Your task to perform on an android device: open wifi settings Image 0: 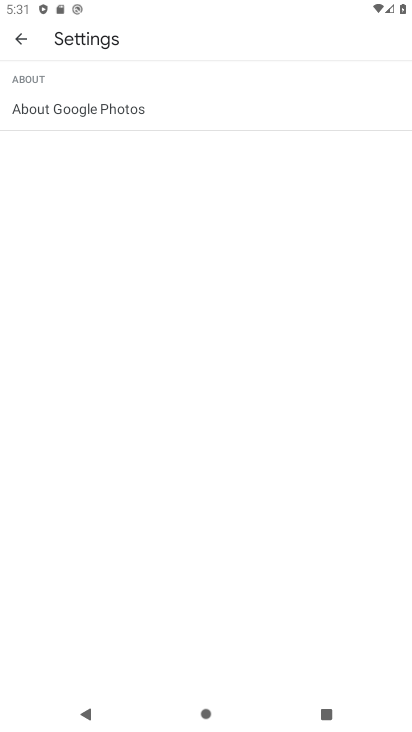
Step 0: press home button
Your task to perform on an android device: open wifi settings Image 1: 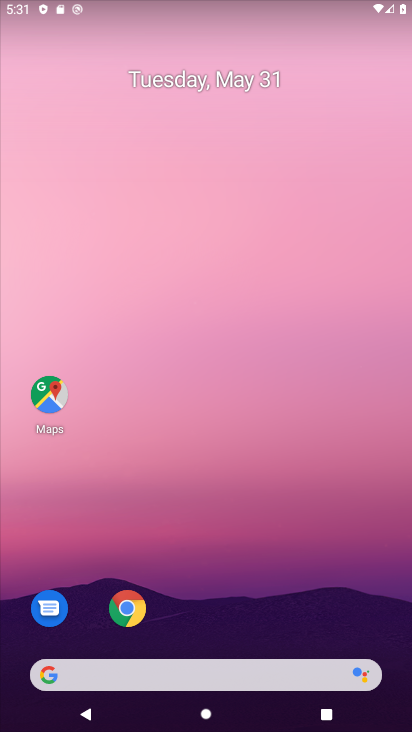
Step 1: drag from (239, 663) to (250, 189)
Your task to perform on an android device: open wifi settings Image 2: 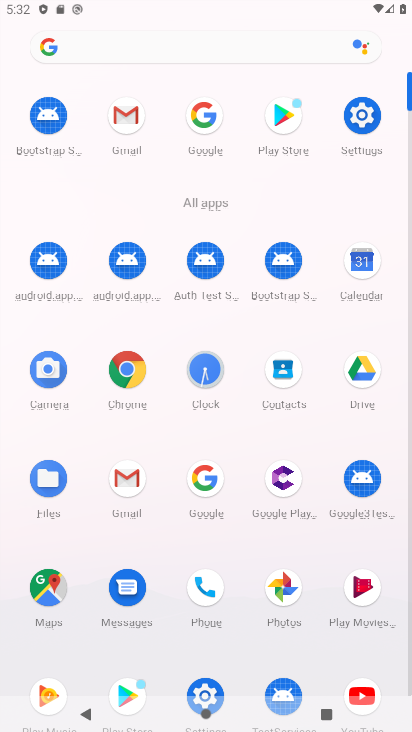
Step 2: click (374, 119)
Your task to perform on an android device: open wifi settings Image 3: 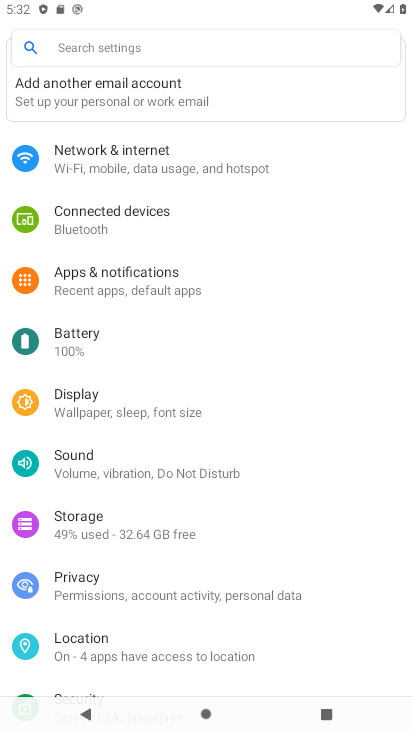
Step 3: click (142, 165)
Your task to perform on an android device: open wifi settings Image 4: 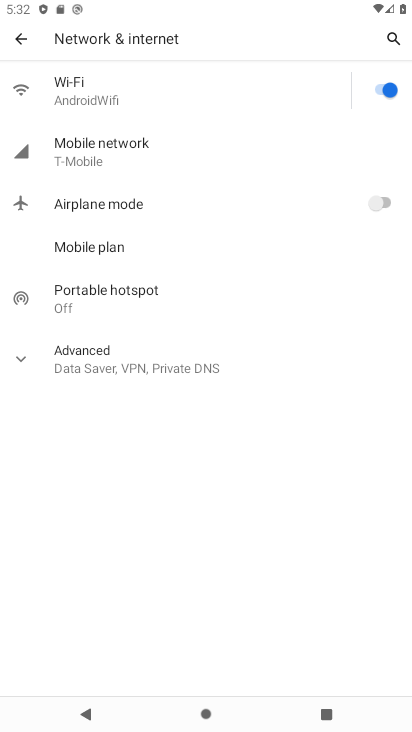
Step 4: click (183, 87)
Your task to perform on an android device: open wifi settings Image 5: 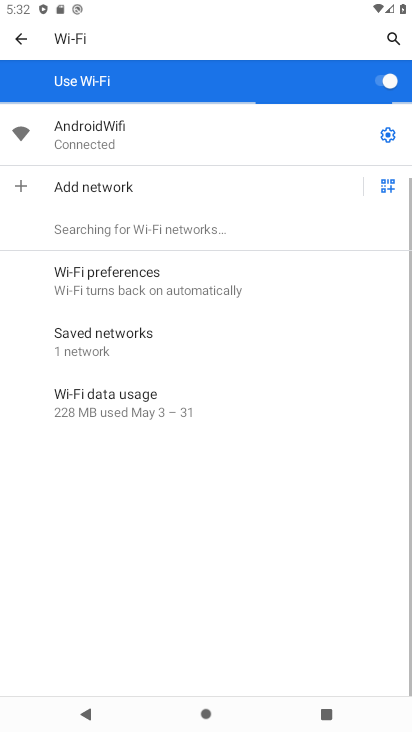
Step 5: click (387, 135)
Your task to perform on an android device: open wifi settings Image 6: 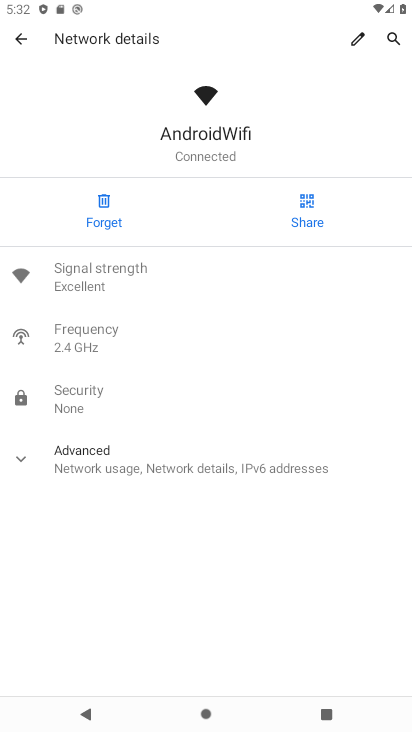
Step 6: click (110, 453)
Your task to perform on an android device: open wifi settings Image 7: 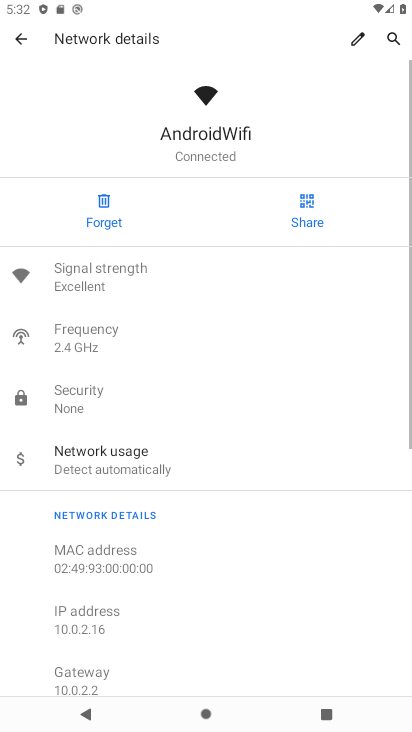
Step 7: task complete